Your task to perform on an android device: Go to Android settings Image 0: 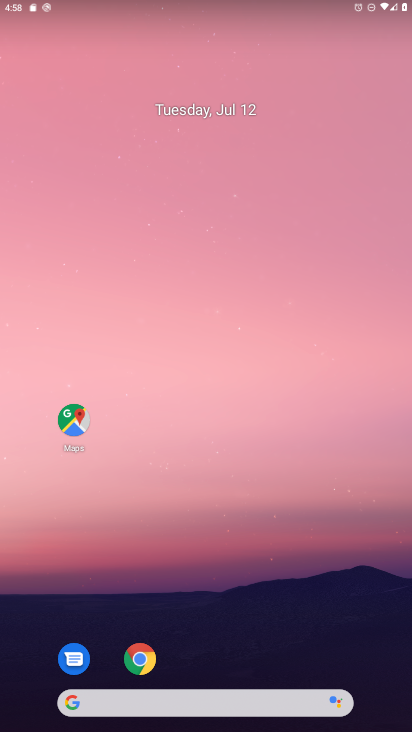
Step 0: drag from (214, 537) to (209, 380)
Your task to perform on an android device: Go to Android settings Image 1: 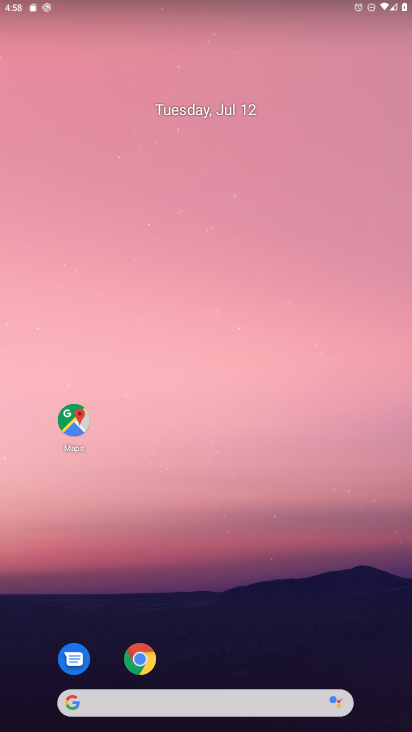
Step 1: drag from (202, 530) to (214, 108)
Your task to perform on an android device: Go to Android settings Image 2: 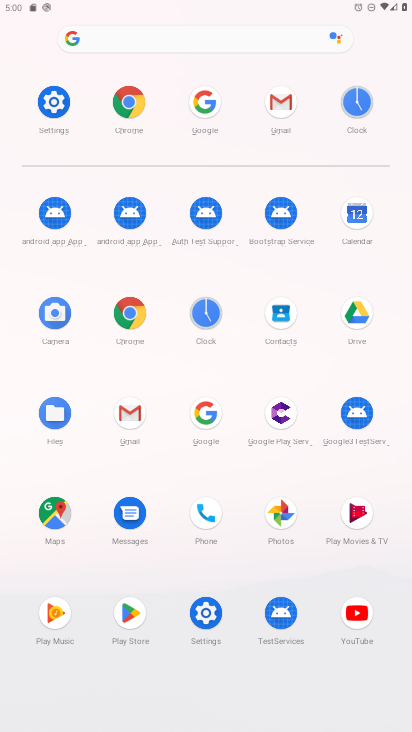
Step 2: click (51, 115)
Your task to perform on an android device: Go to Android settings Image 3: 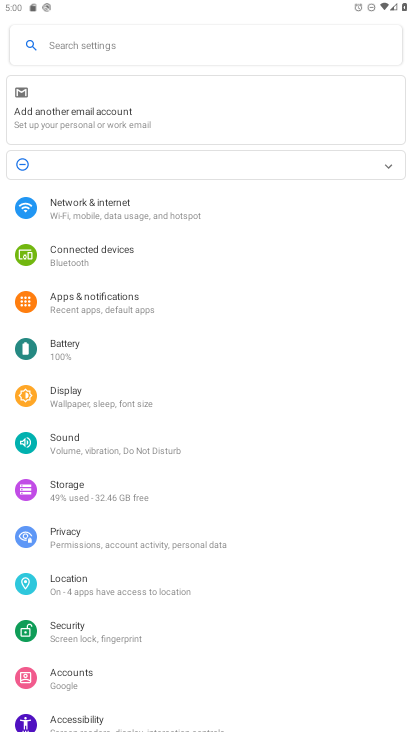
Step 3: drag from (139, 635) to (140, 256)
Your task to perform on an android device: Go to Android settings Image 4: 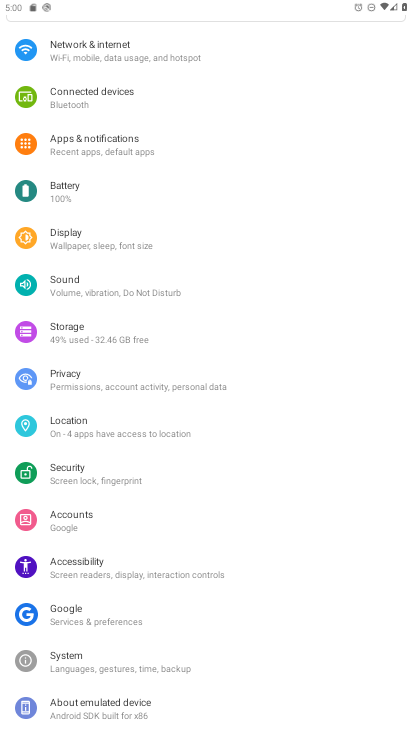
Step 4: click (64, 704)
Your task to perform on an android device: Go to Android settings Image 5: 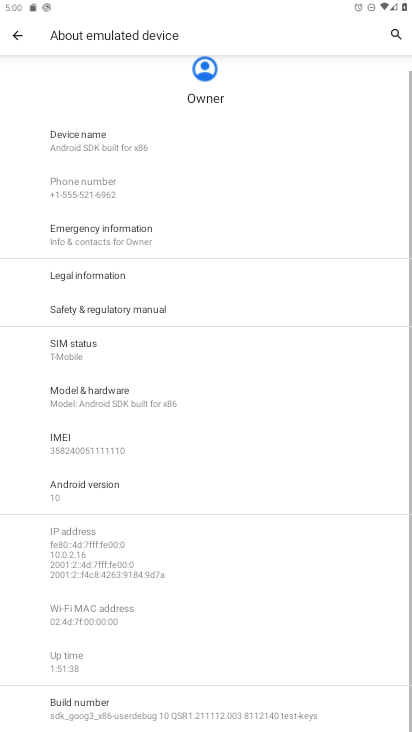
Step 5: drag from (71, 673) to (89, 581)
Your task to perform on an android device: Go to Android settings Image 6: 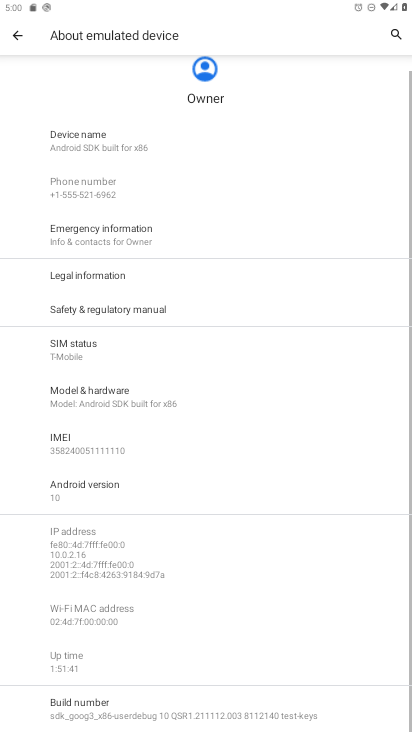
Step 6: click (102, 502)
Your task to perform on an android device: Go to Android settings Image 7: 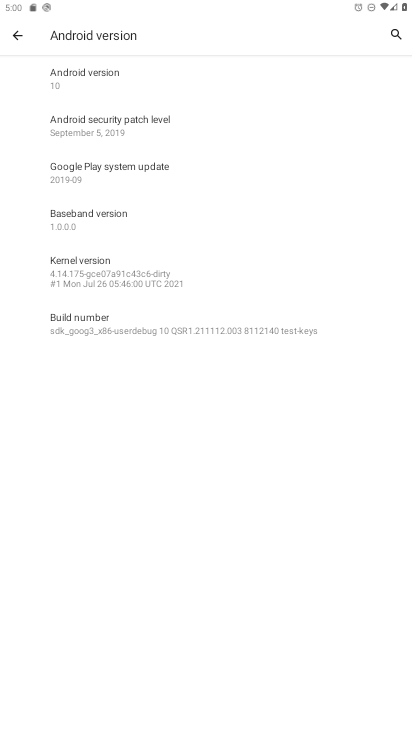
Step 7: task complete